Your task to perform on an android device: install app "Nova Launcher" Image 0: 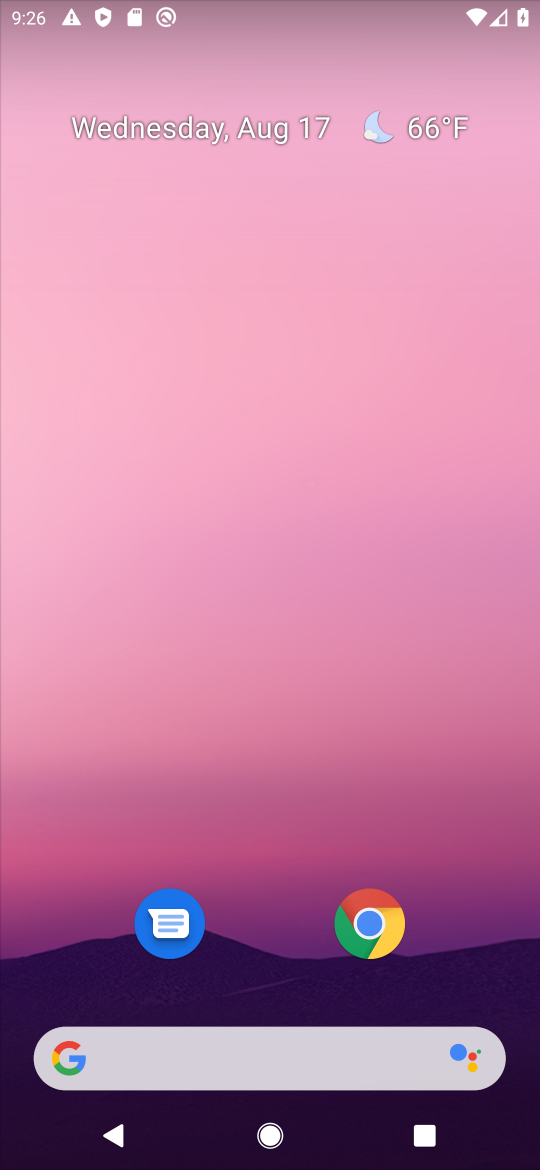
Step 0: drag from (479, 896) to (335, 53)
Your task to perform on an android device: install app "Nova Launcher" Image 1: 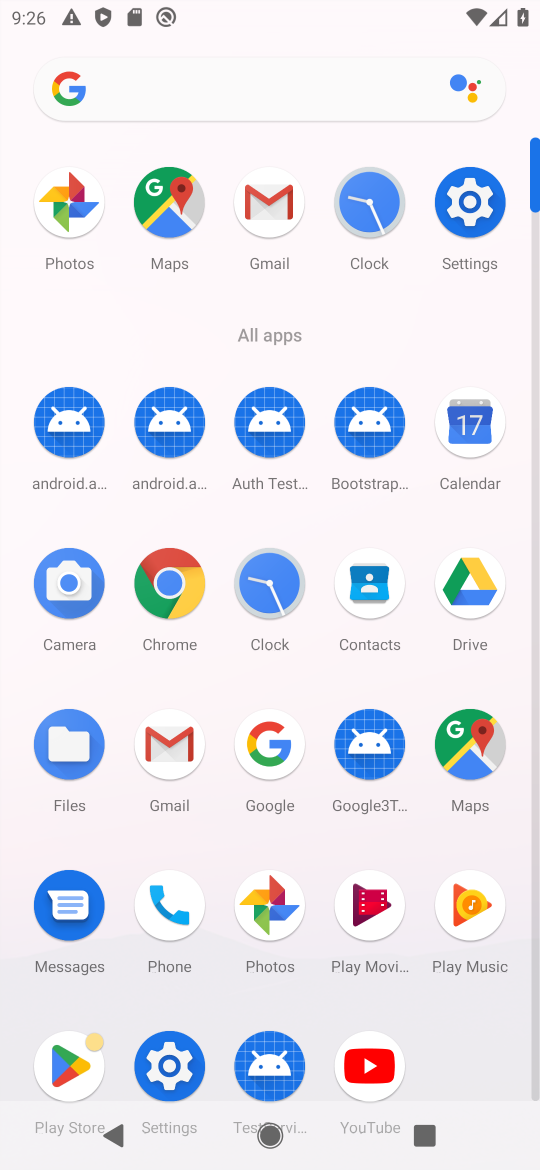
Step 1: click (94, 1044)
Your task to perform on an android device: install app "Nova Launcher" Image 2: 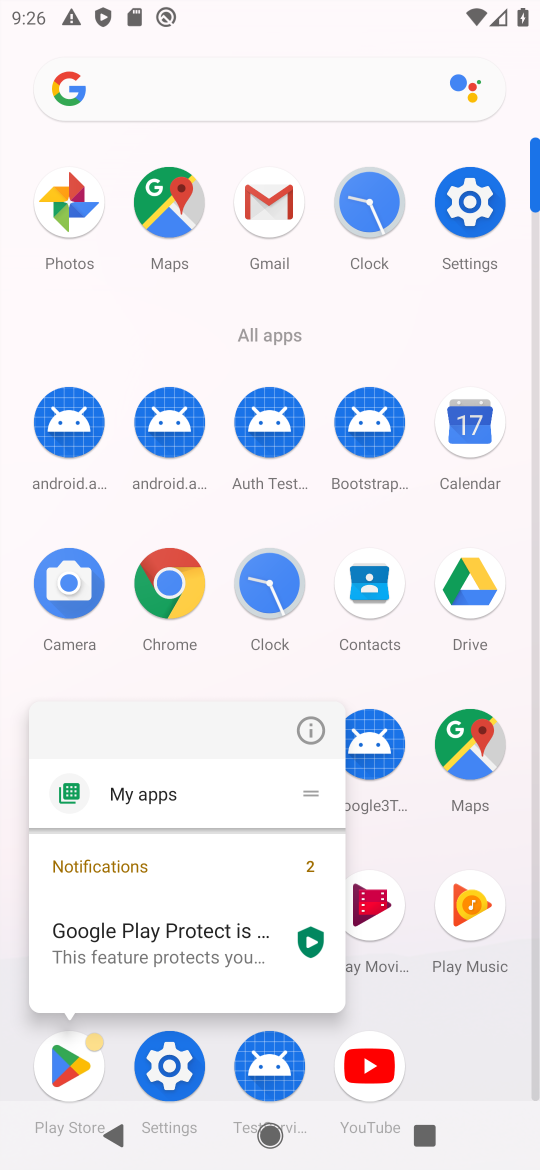
Step 2: click (76, 1068)
Your task to perform on an android device: install app "Nova Launcher" Image 3: 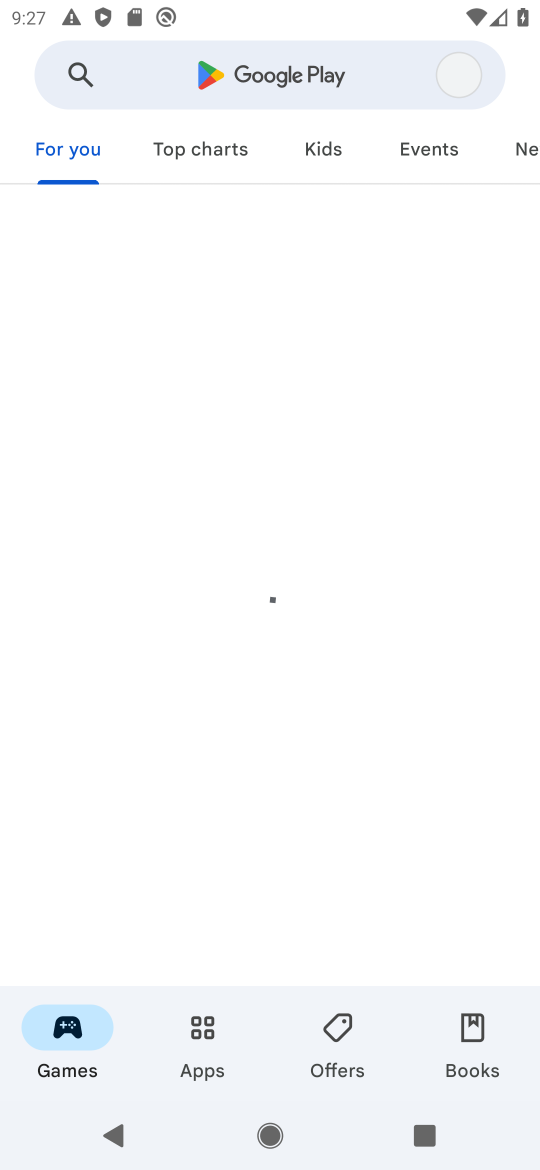
Step 3: click (76, 1068)
Your task to perform on an android device: install app "Nova Launcher" Image 4: 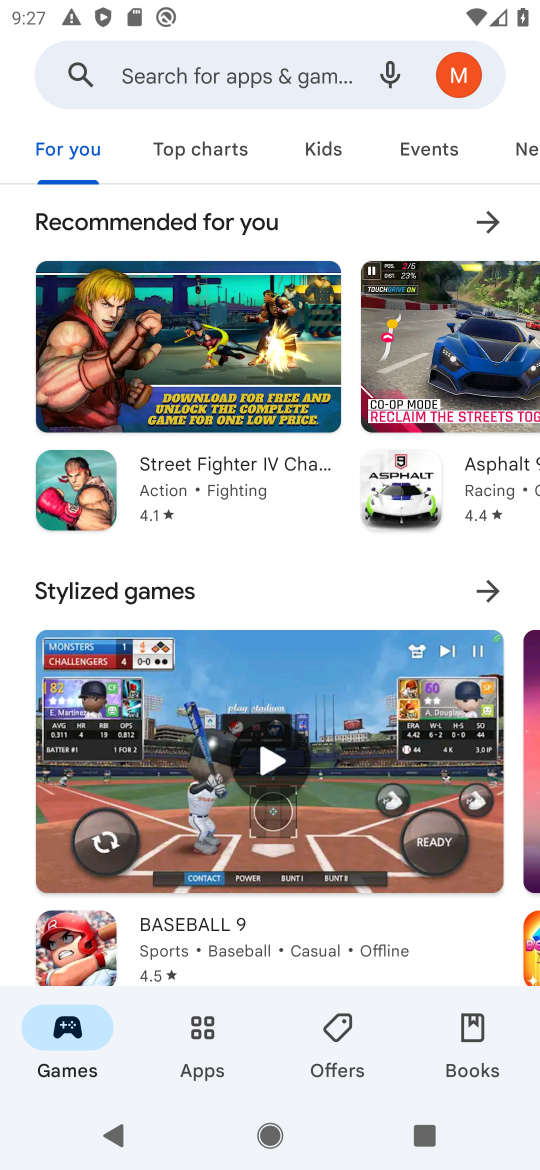
Step 4: click (217, 98)
Your task to perform on an android device: install app "Nova Launcher" Image 5: 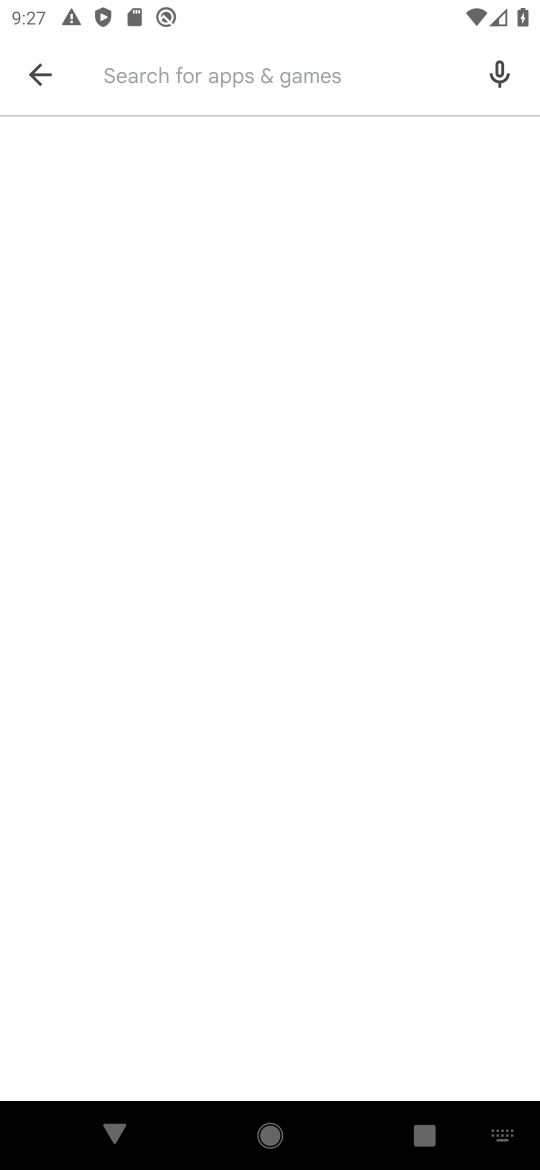
Step 5: type "nova"
Your task to perform on an android device: install app "Nova Launcher" Image 6: 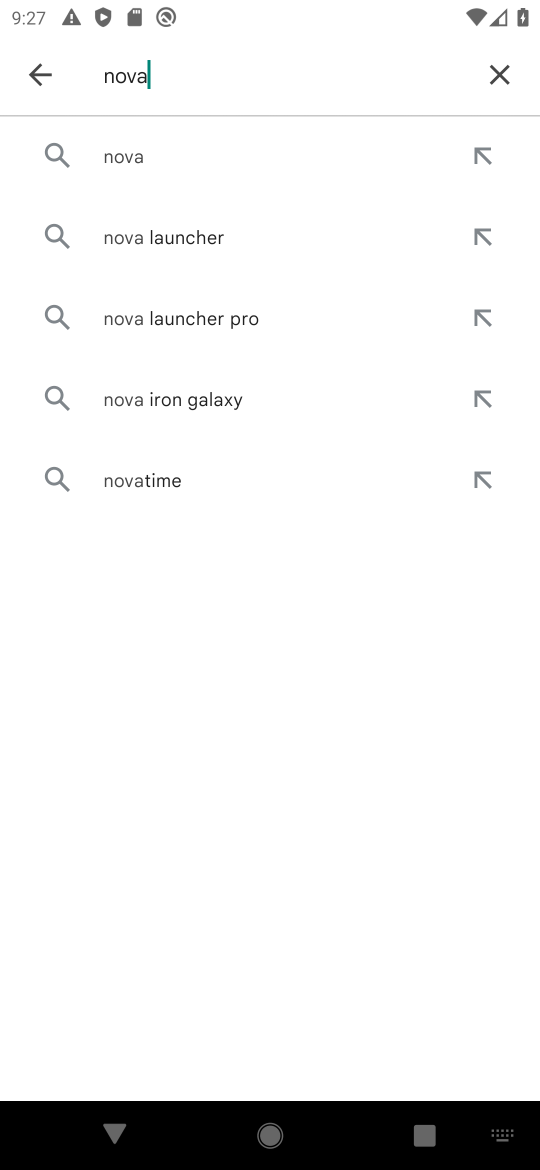
Step 6: click (178, 237)
Your task to perform on an android device: install app "Nova Launcher" Image 7: 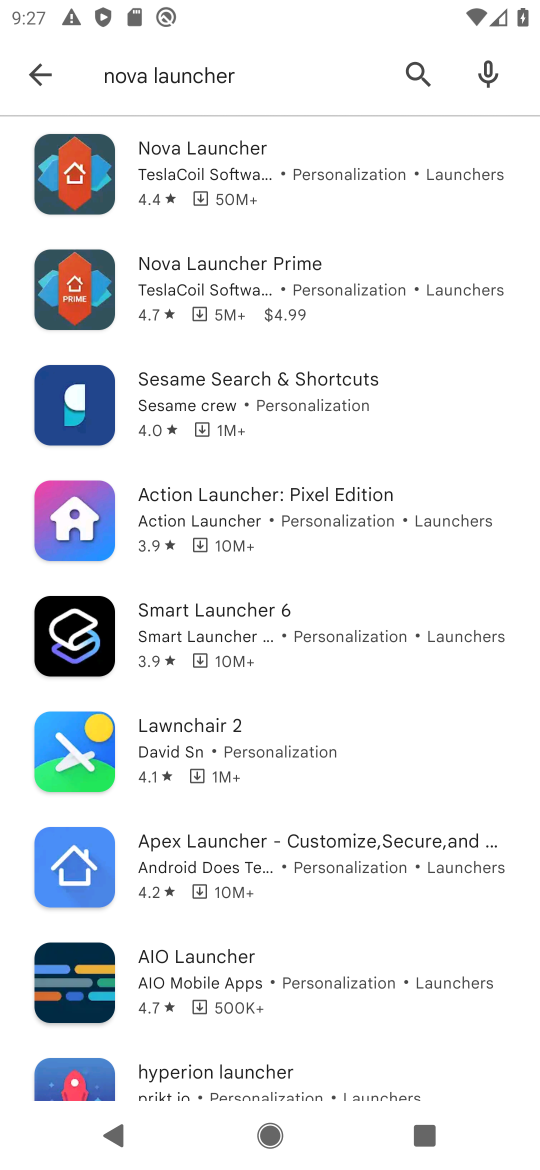
Step 7: click (246, 187)
Your task to perform on an android device: install app "Nova Launcher" Image 8: 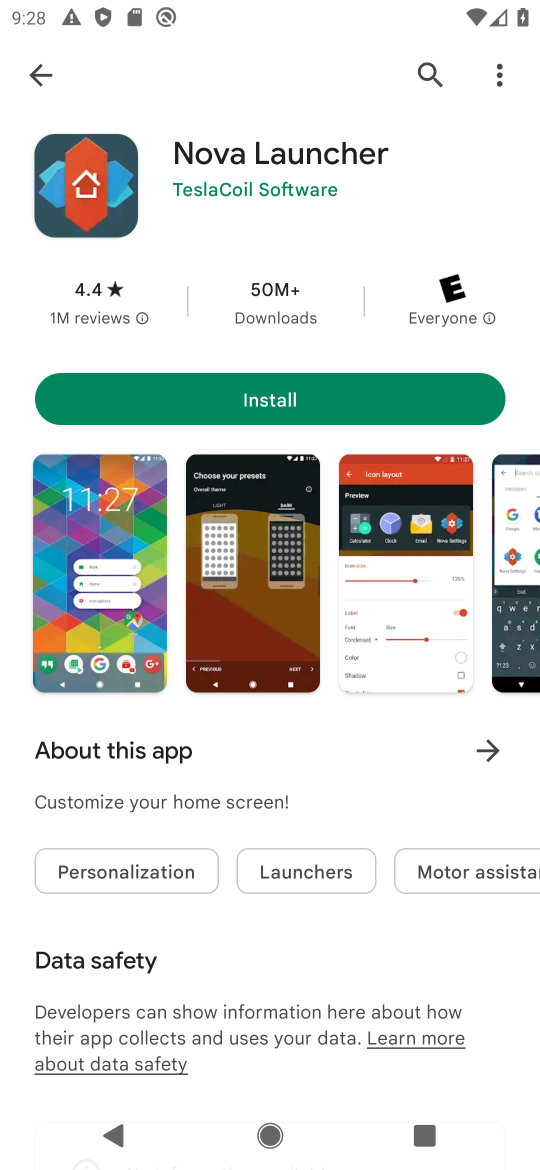
Step 8: click (303, 389)
Your task to perform on an android device: install app "Nova Launcher" Image 9: 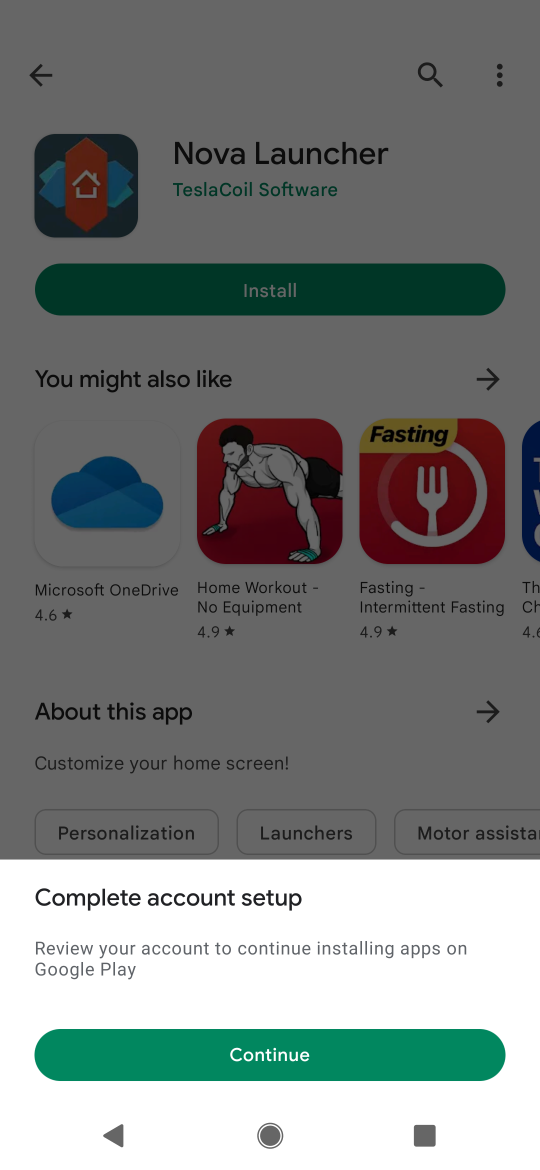
Step 9: click (358, 1040)
Your task to perform on an android device: install app "Nova Launcher" Image 10: 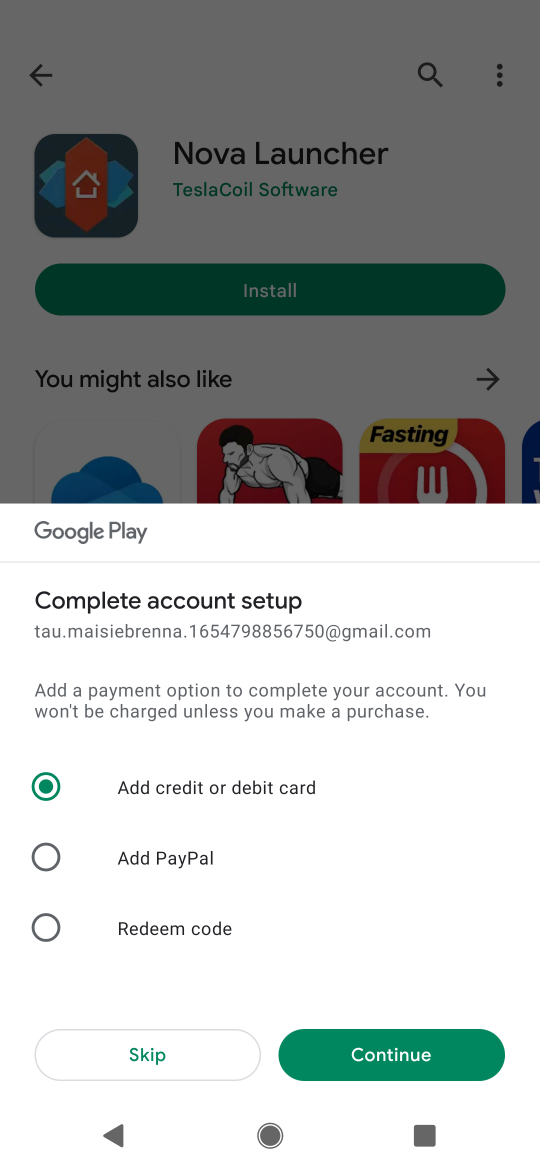
Step 10: click (184, 1037)
Your task to perform on an android device: install app "Nova Launcher" Image 11: 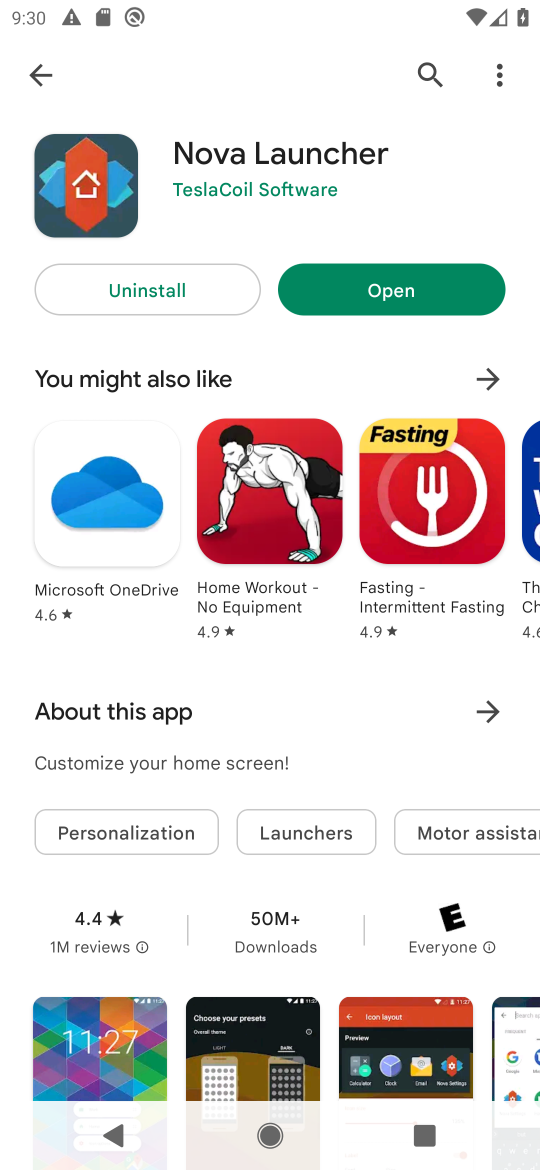
Step 11: task complete